Your task to perform on an android device: turn smart compose on in the gmail app Image 0: 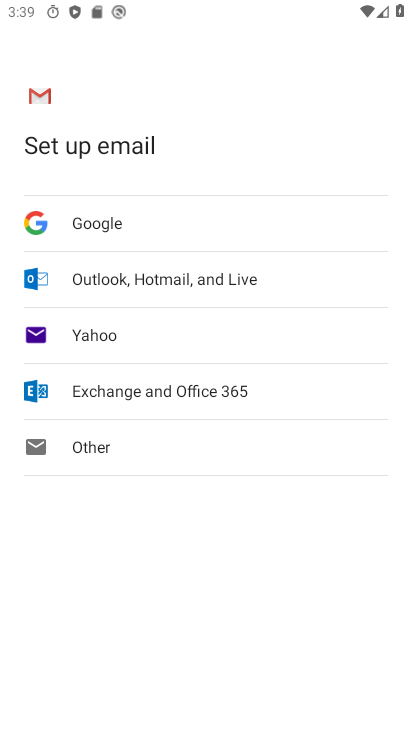
Step 0: press home button
Your task to perform on an android device: turn smart compose on in the gmail app Image 1: 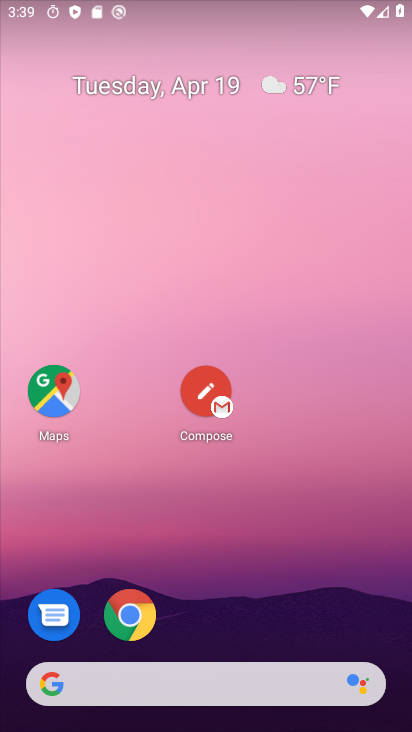
Step 1: drag from (284, 599) to (271, 113)
Your task to perform on an android device: turn smart compose on in the gmail app Image 2: 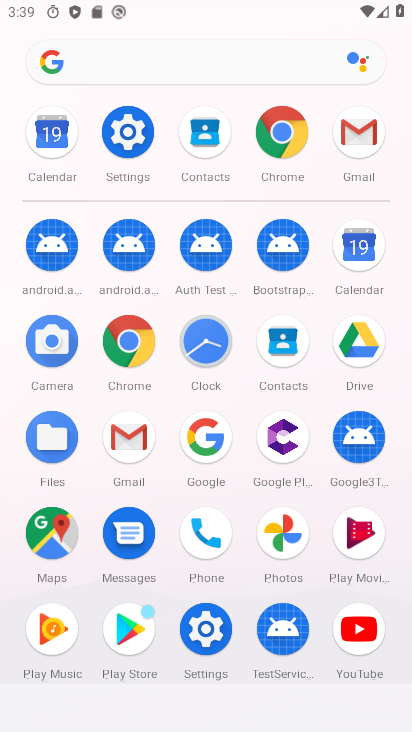
Step 2: click (132, 447)
Your task to perform on an android device: turn smart compose on in the gmail app Image 3: 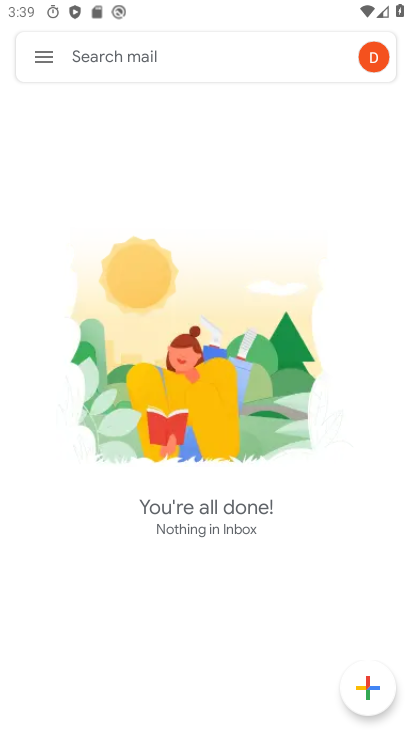
Step 3: click (35, 58)
Your task to perform on an android device: turn smart compose on in the gmail app Image 4: 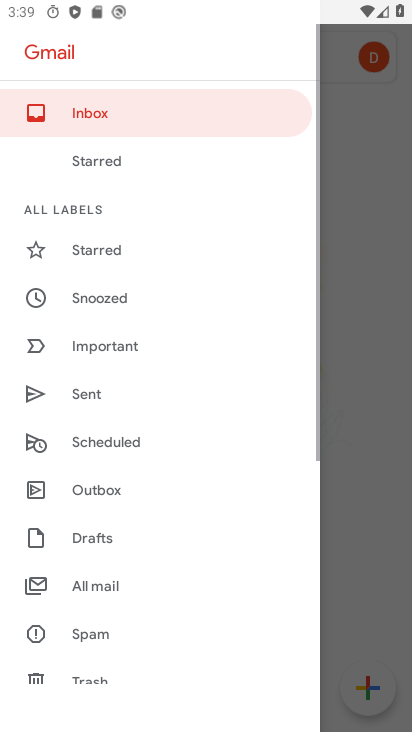
Step 4: drag from (184, 656) to (176, 124)
Your task to perform on an android device: turn smart compose on in the gmail app Image 5: 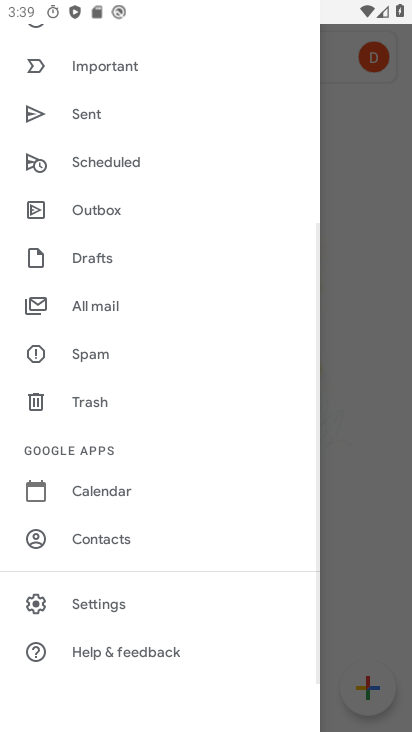
Step 5: click (110, 607)
Your task to perform on an android device: turn smart compose on in the gmail app Image 6: 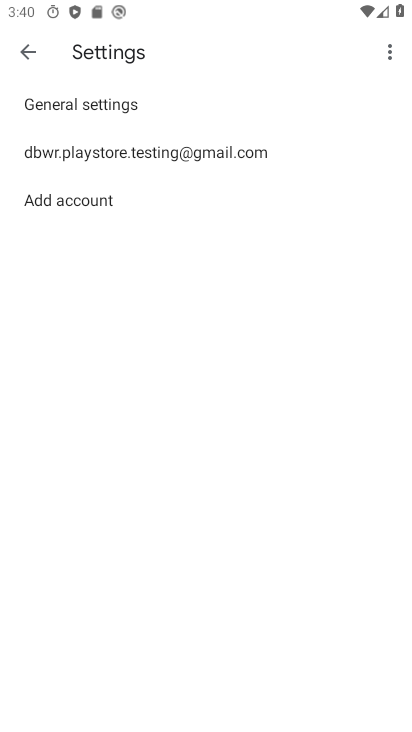
Step 6: click (140, 156)
Your task to perform on an android device: turn smart compose on in the gmail app Image 7: 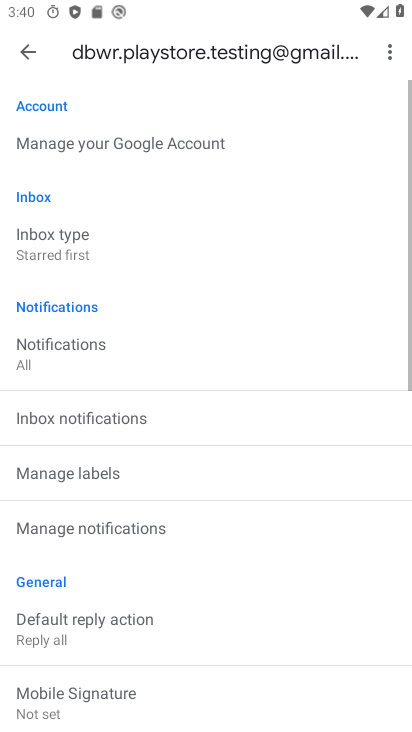
Step 7: task complete